Your task to perform on an android device: Search for sushi restaurants on Maps Image 0: 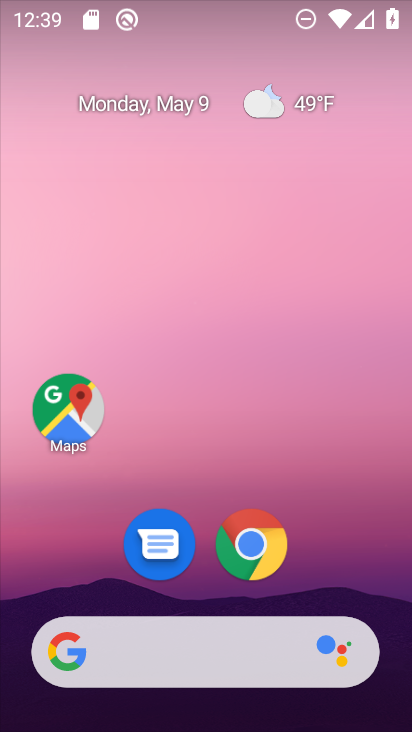
Step 0: click (58, 426)
Your task to perform on an android device: Search for sushi restaurants on Maps Image 1: 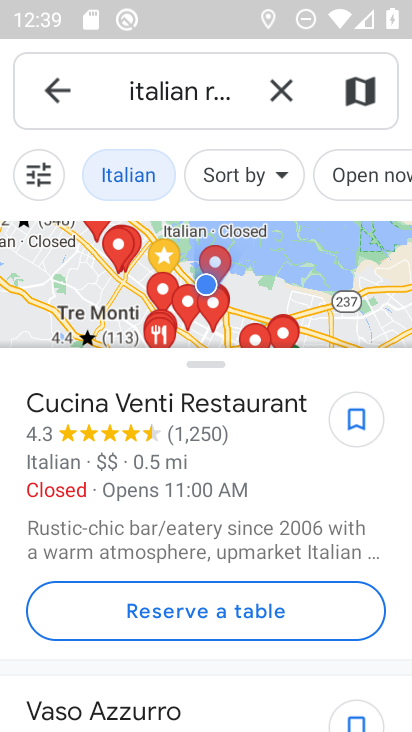
Step 1: click (269, 80)
Your task to perform on an android device: Search for sushi restaurants on Maps Image 2: 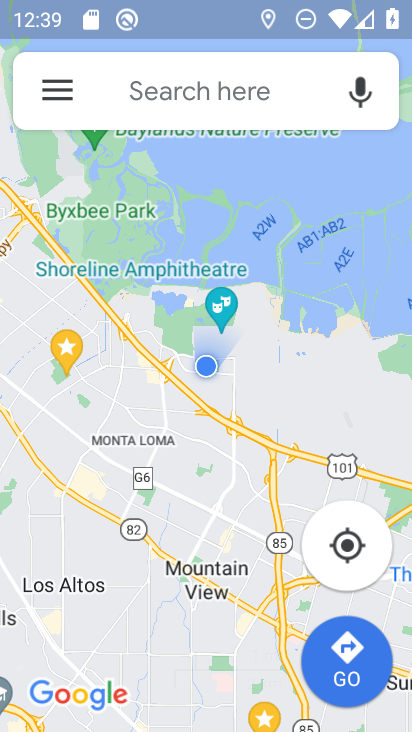
Step 2: click (150, 83)
Your task to perform on an android device: Search for sushi restaurants on Maps Image 3: 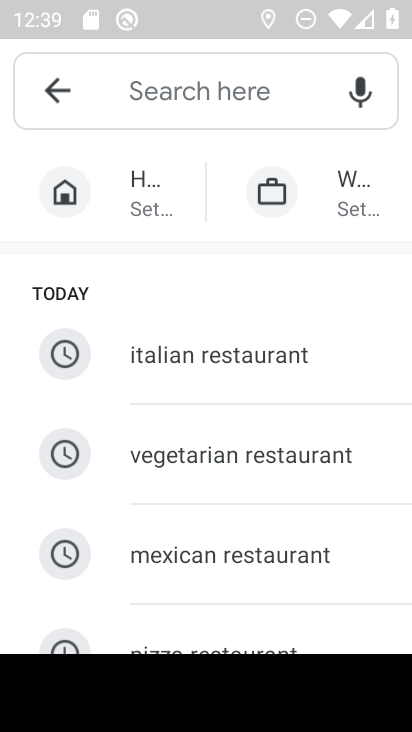
Step 3: drag from (294, 531) to (316, 216)
Your task to perform on an android device: Search for sushi restaurants on Maps Image 4: 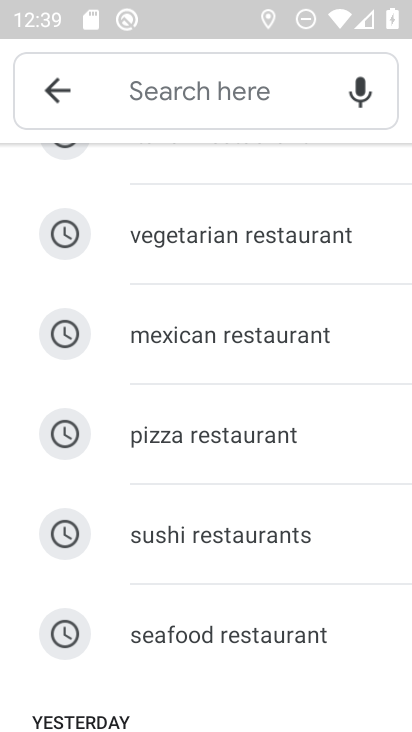
Step 4: click (214, 540)
Your task to perform on an android device: Search for sushi restaurants on Maps Image 5: 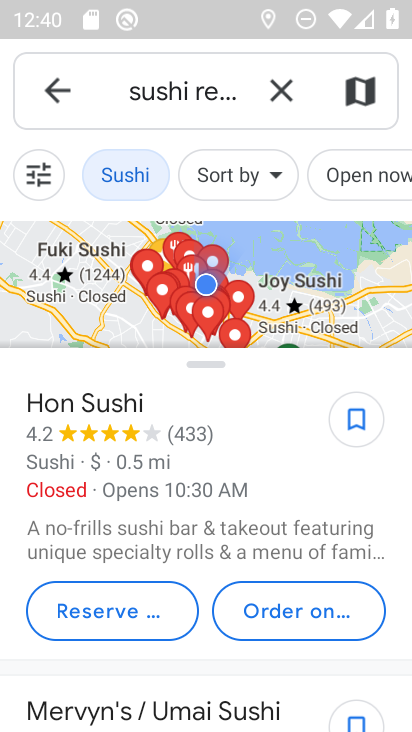
Step 5: task complete